Your task to perform on an android device: delete browsing data in the chrome app Image 0: 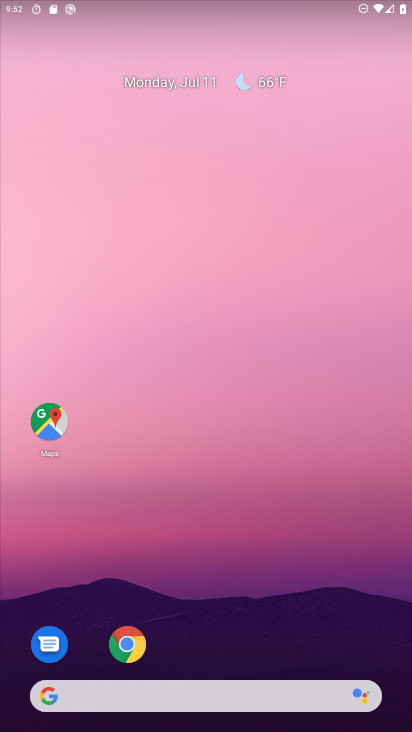
Step 0: drag from (283, 458) to (232, 125)
Your task to perform on an android device: delete browsing data in the chrome app Image 1: 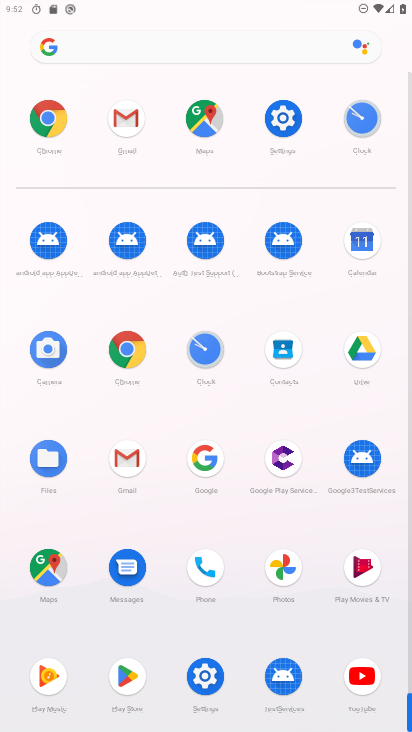
Step 1: click (127, 348)
Your task to perform on an android device: delete browsing data in the chrome app Image 2: 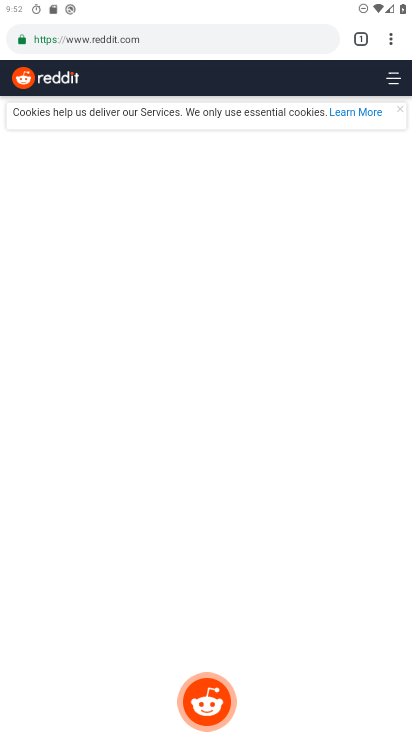
Step 2: drag from (395, 31) to (263, 255)
Your task to perform on an android device: delete browsing data in the chrome app Image 3: 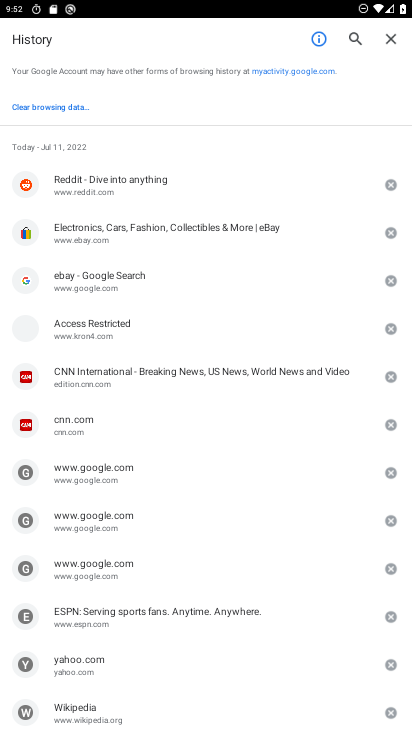
Step 3: click (57, 104)
Your task to perform on an android device: delete browsing data in the chrome app Image 4: 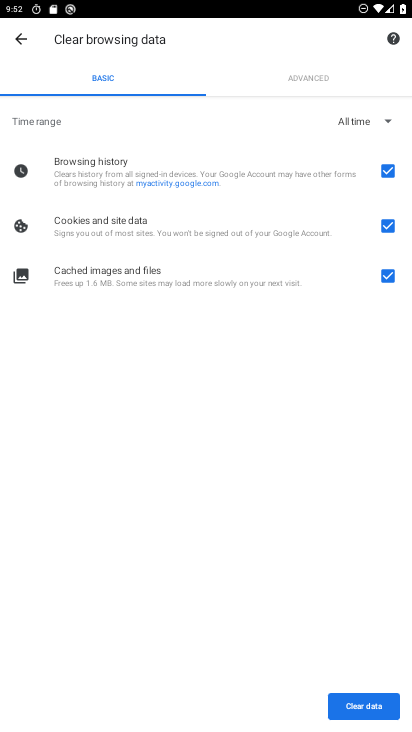
Step 4: click (375, 703)
Your task to perform on an android device: delete browsing data in the chrome app Image 5: 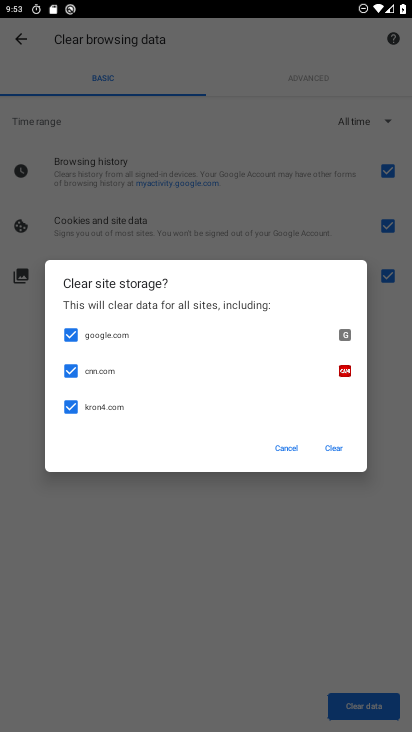
Step 5: click (333, 444)
Your task to perform on an android device: delete browsing data in the chrome app Image 6: 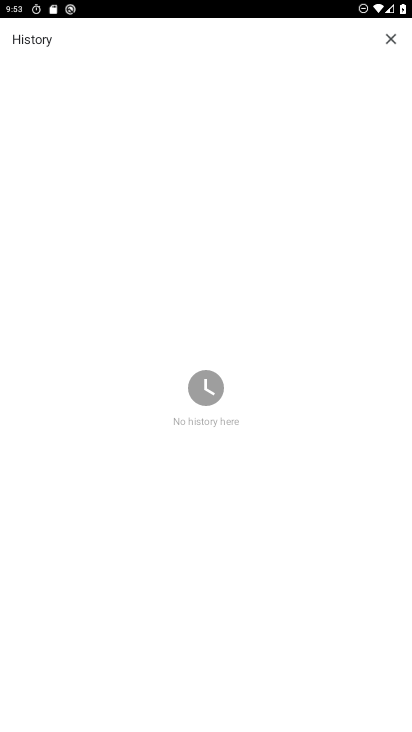
Step 6: task complete